Your task to perform on an android device: visit the assistant section in the google photos Image 0: 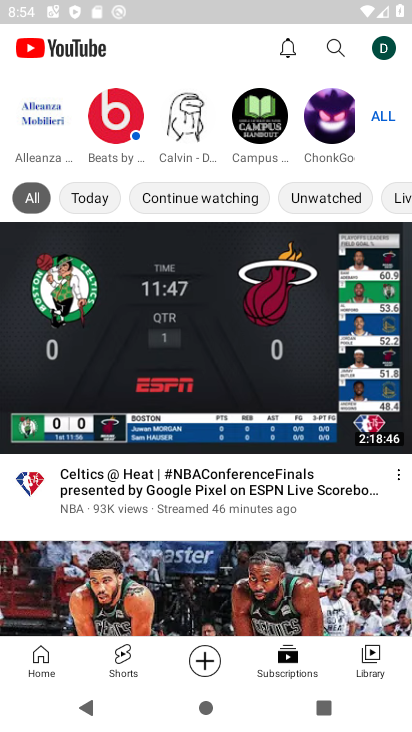
Step 0: press home button
Your task to perform on an android device: visit the assistant section in the google photos Image 1: 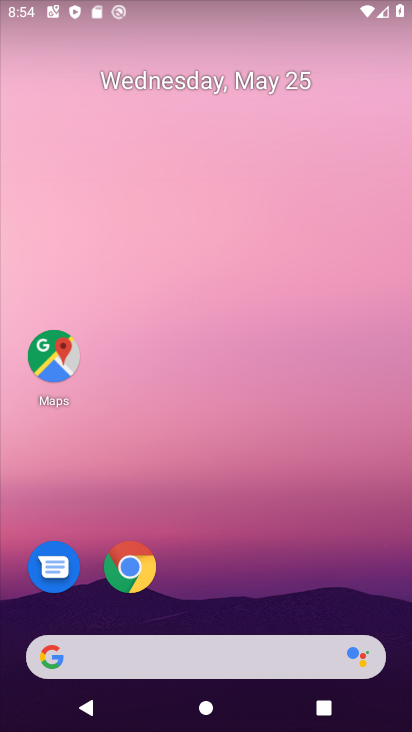
Step 1: drag from (234, 544) to (242, 39)
Your task to perform on an android device: visit the assistant section in the google photos Image 2: 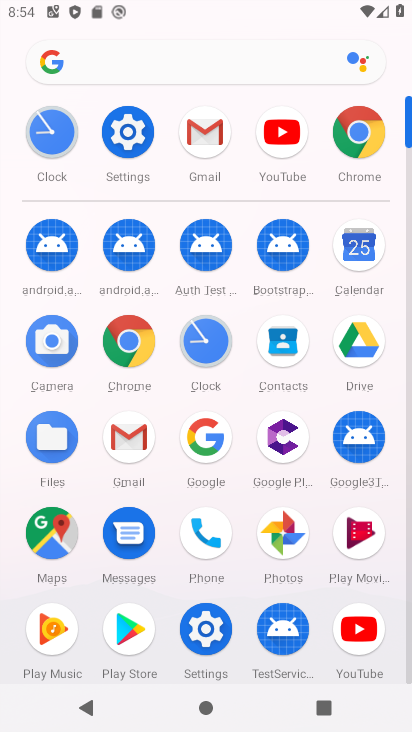
Step 2: click (278, 534)
Your task to perform on an android device: visit the assistant section in the google photos Image 3: 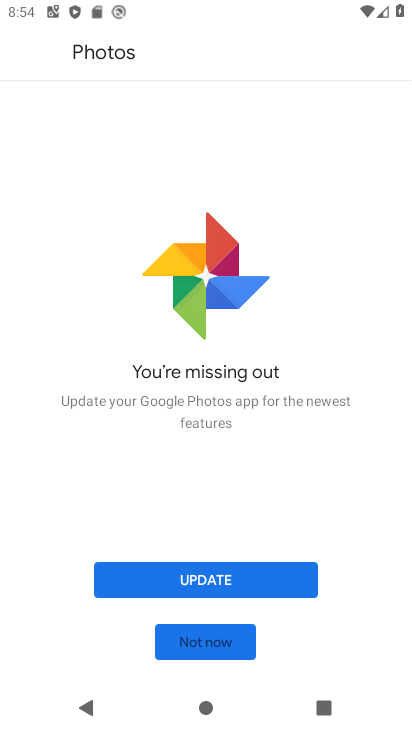
Step 3: click (261, 651)
Your task to perform on an android device: visit the assistant section in the google photos Image 4: 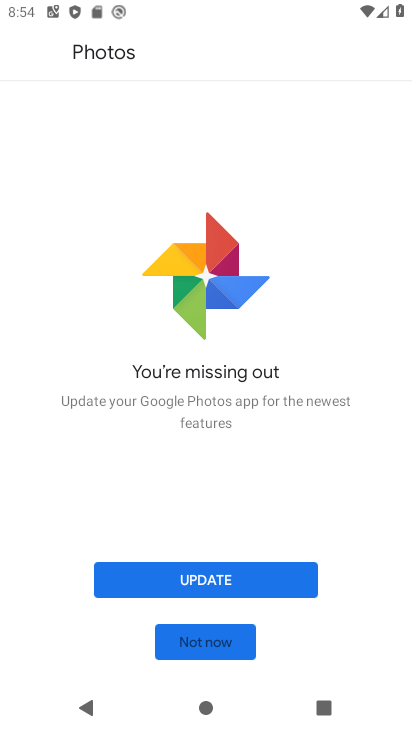
Step 4: click (234, 642)
Your task to perform on an android device: visit the assistant section in the google photos Image 5: 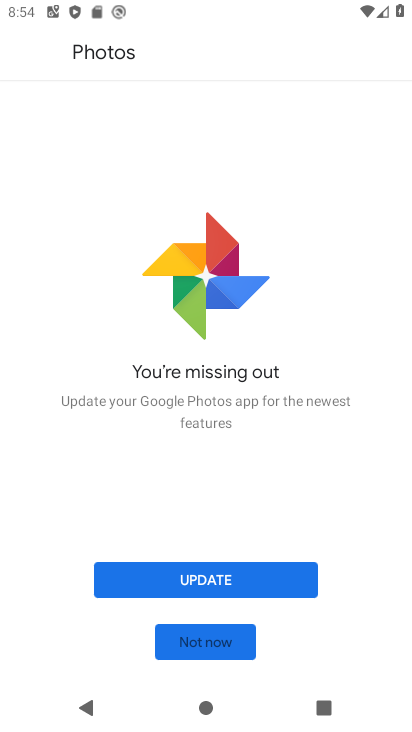
Step 5: click (234, 642)
Your task to perform on an android device: visit the assistant section in the google photos Image 6: 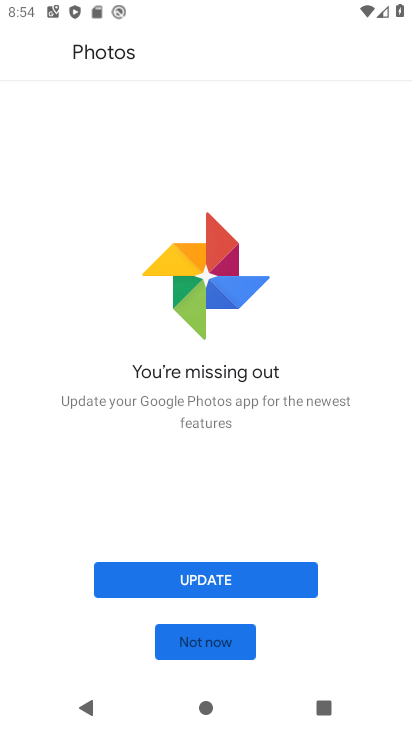
Step 6: click (239, 633)
Your task to perform on an android device: visit the assistant section in the google photos Image 7: 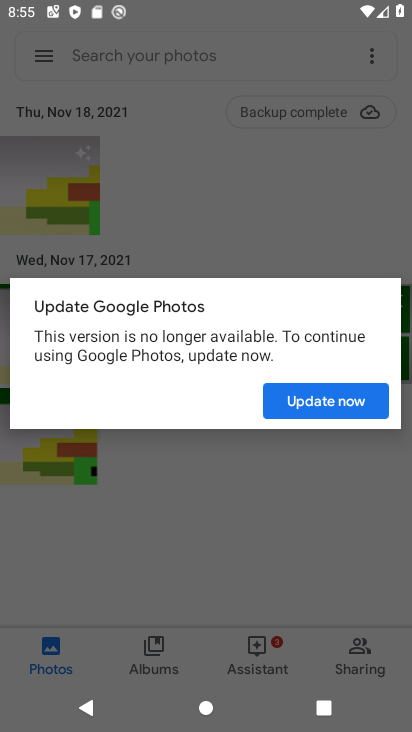
Step 7: click (308, 392)
Your task to perform on an android device: visit the assistant section in the google photos Image 8: 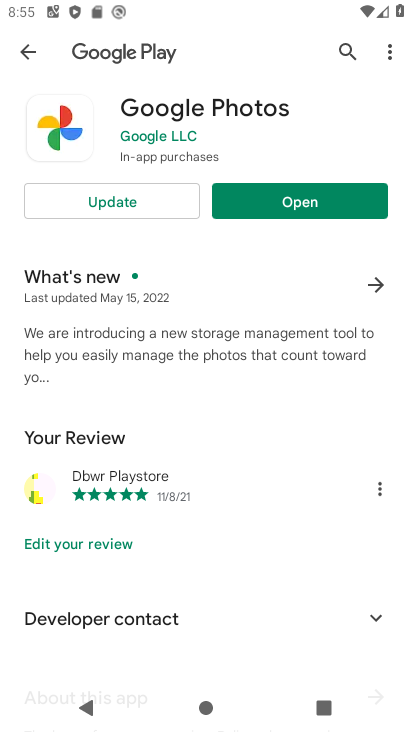
Step 8: click (301, 205)
Your task to perform on an android device: visit the assistant section in the google photos Image 9: 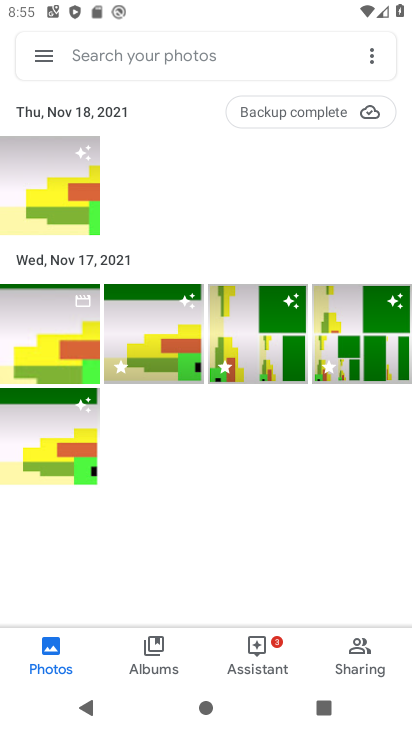
Step 9: click (240, 645)
Your task to perform on an android device: visit the assistant section in the google photos Image 10: 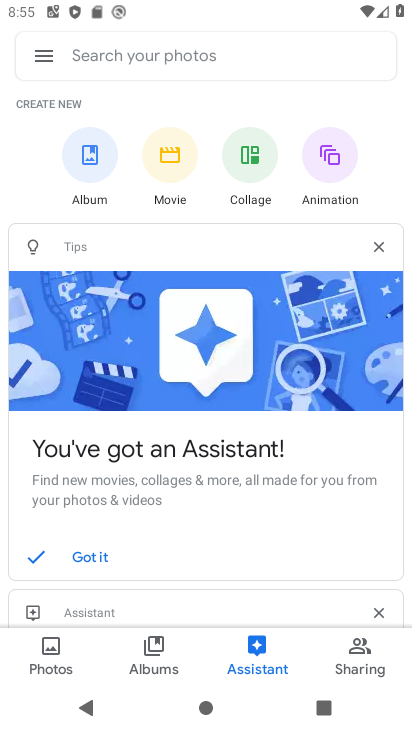
Step 10: task complete